Your task to perform on an android device: Open Google Maps and go to "Timeline" Image 0: 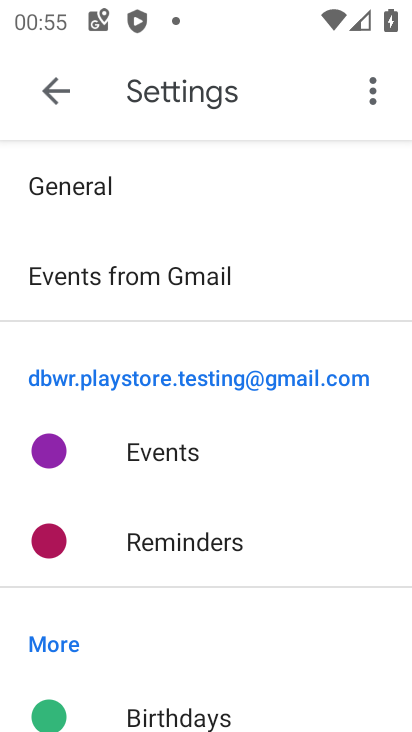
Step 0: press back button
Your task to perform on an android device: Open Google Maps and go to "Timeline" Image 1: 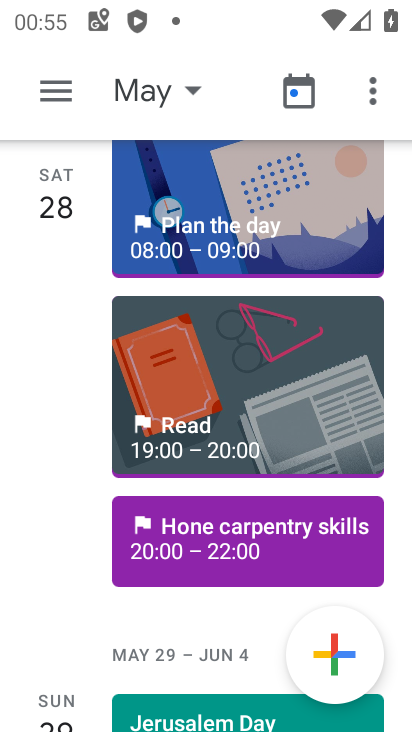
Step 1: press back button
Your task to perform on an android device: Open Google Maps and go to "Timeline" Image 2: 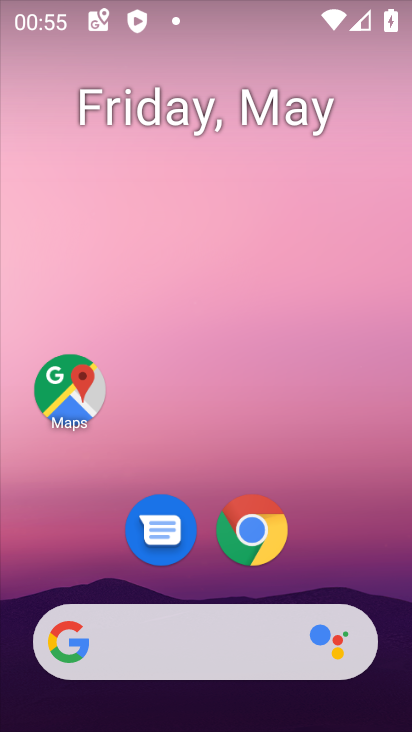
Step 2: click (71, 391)
Your task to perform on an android device: Open Google Maps and go to "Timeline" Image 3: 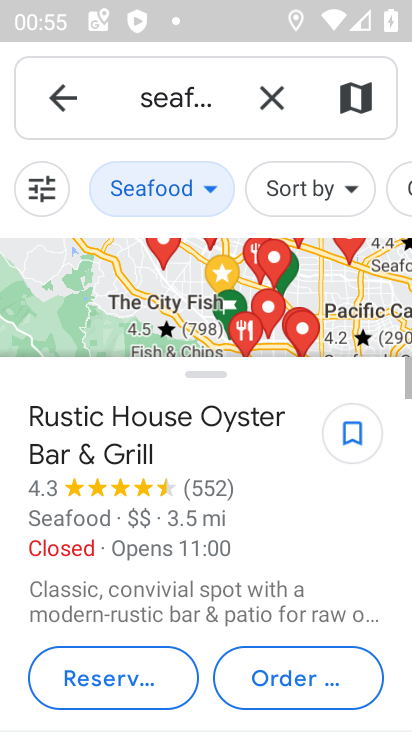
Step 3: click (272, 96)
Your task to perform on an android device: Open Google Maps and go to "Timeline" Image 4: 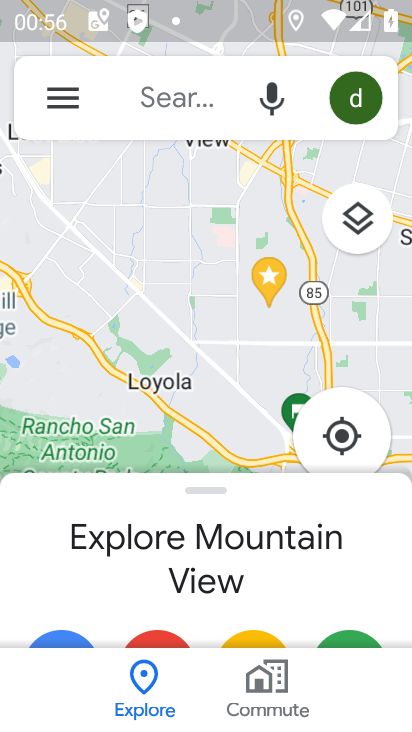
Step 4: click (63, 111)
Your task to perform on an android device: Open Google Maps and go to "Timeline" Image 5: 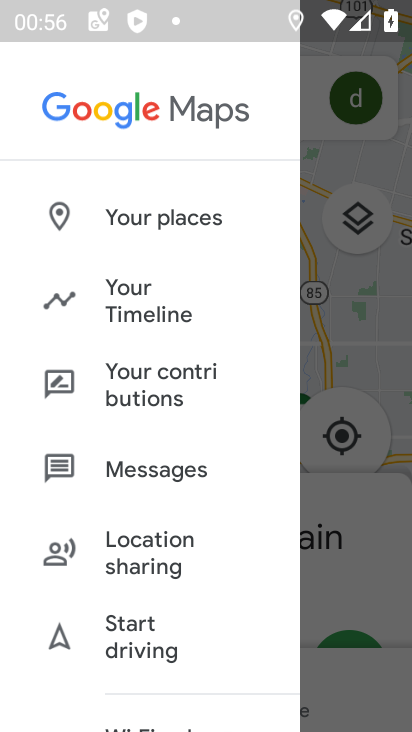
Step 5: click (133, 305)
Your task to perform on an android device: Open Google Maps and go to "Timeline" Image 6: 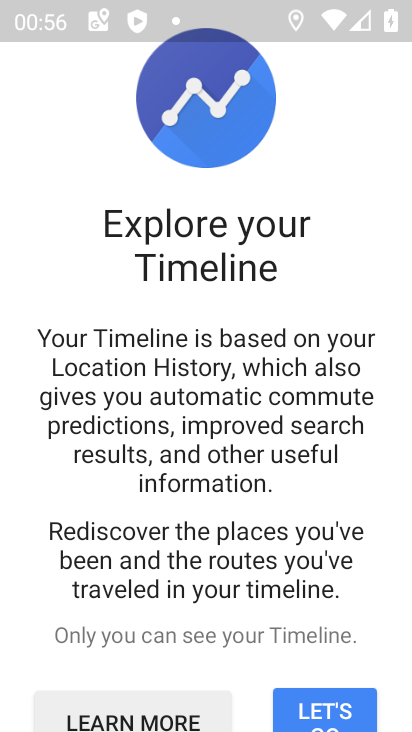
Step 6: drag from (231, 664) to (278, 459)
Your task to perform on an android device: Open Google Maps and go to "Timeline" Image 7: 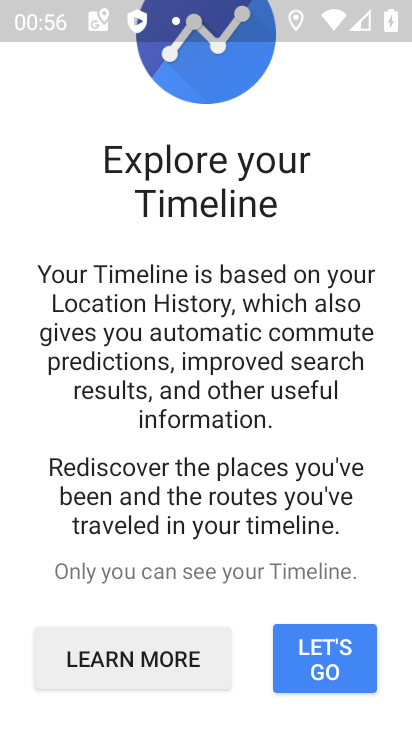
Step 7: click (333, 665)
Your task to perform on an android device: Open Google Maps and go to "Timeline" Image 8: 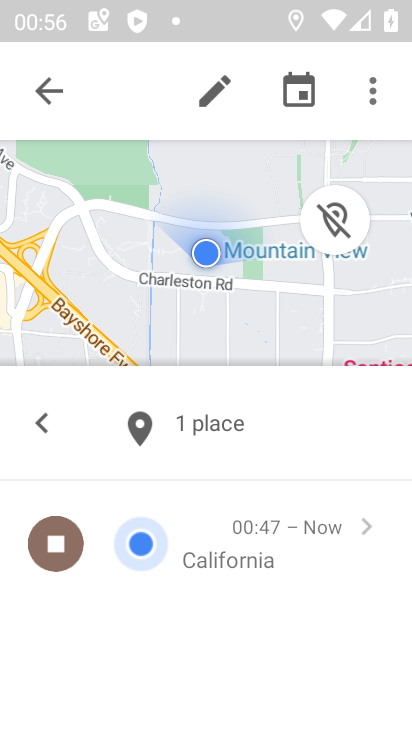
Step 8: task complete